Your task to perform on an android device: Go to Android settings Image 0: 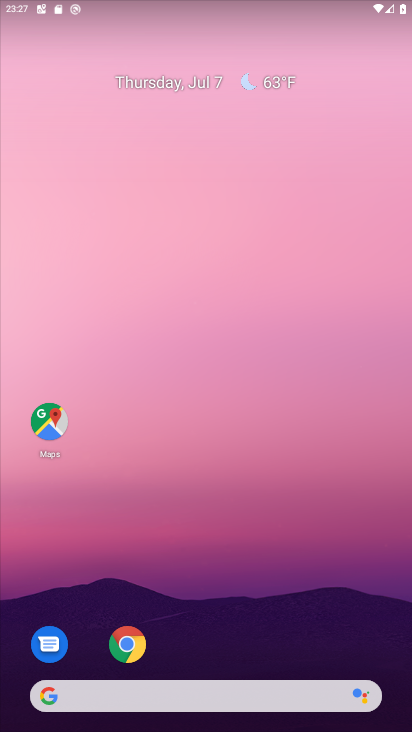
Step 0: drag from (207, 727) to (207, 39)
Your task to perform on an android device: Go to Android settings Image 1: 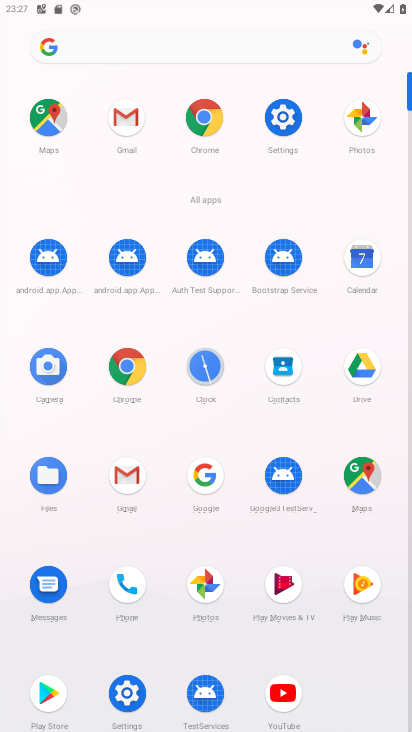
Step 1: click (283, 113)
Your task to perform on an android device: Go to Android settings Image 2: 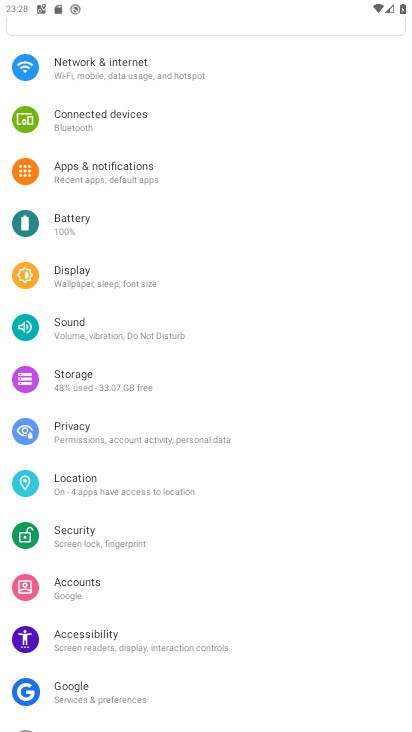
Step 2: task complete